Your task to perform on an android device: install app "PUBG MOBILE" Image 0: 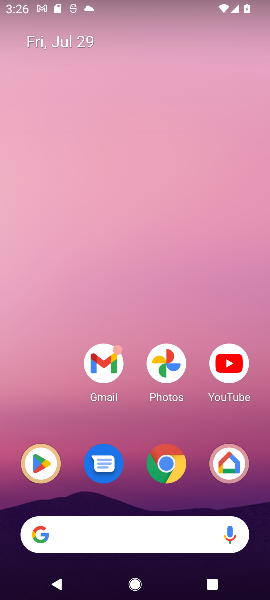
Step 0: drag from (119, 542) to (190, 119)
Your task to perform on an android device: install app "PUBG MOBILE" Image 1: 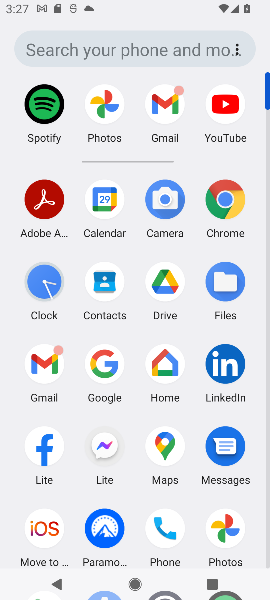
Step 1: drag from (133, 509) to (119, 331)
Your task to perform on an android device: install app "PUBG MOBILE" Image 2: 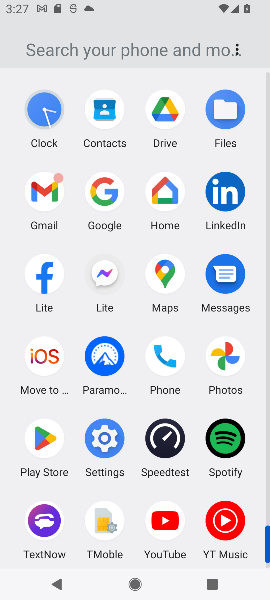
Step 2: click (47, 440)
Your task to perform on an android device: install app "PUBG MOBILE" Image 3: 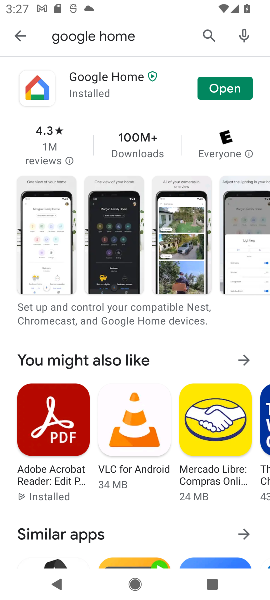
Step 3: click (207, 33)
Your task to perform on an android device: install app "PUBG MOBILE" Image 4: 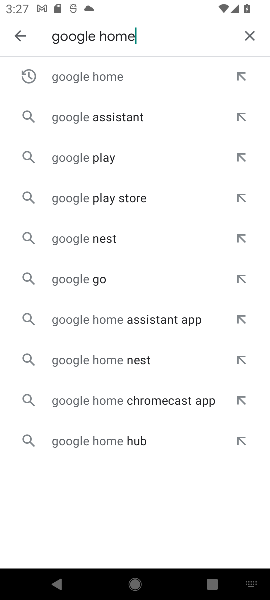
Step 4: click (249, 32)
Your task to perform on an android device: install app "PUBG MOBILE" Image 5: 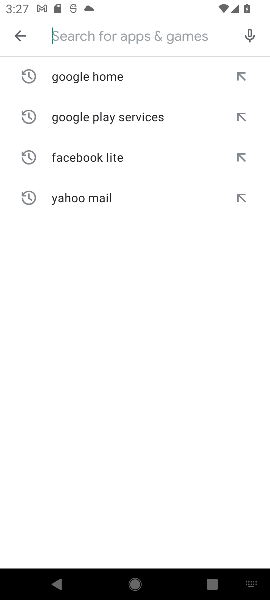
Step 5: type "PUBG MOBILE"
Your task to perform on an android device: install app "PUBG MOBILE" Image 6: 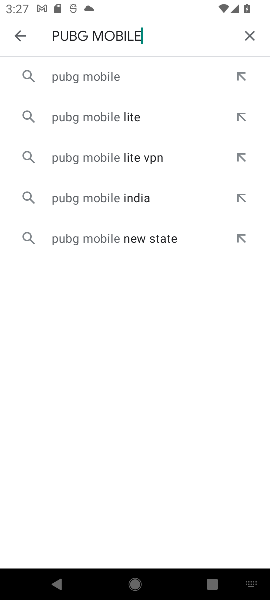
Step 6: click (88, 75)
Your task to perform on an android device: install app "PUBG MOBILE" Image 7: 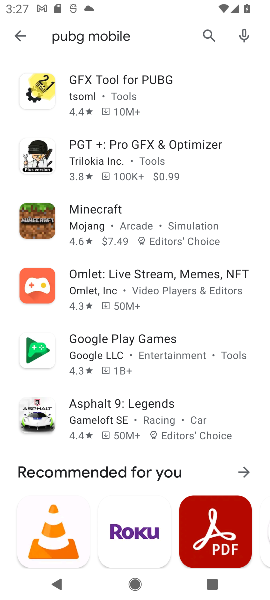
Step 7: click (127, 83)
Your task to perform on an android device: install app "PUBG MOBILE" Image 8: 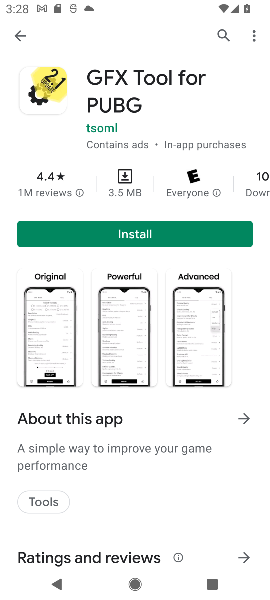
Step 8: task complete